Your task to perform on an android device: Go to Android settings Image 0: 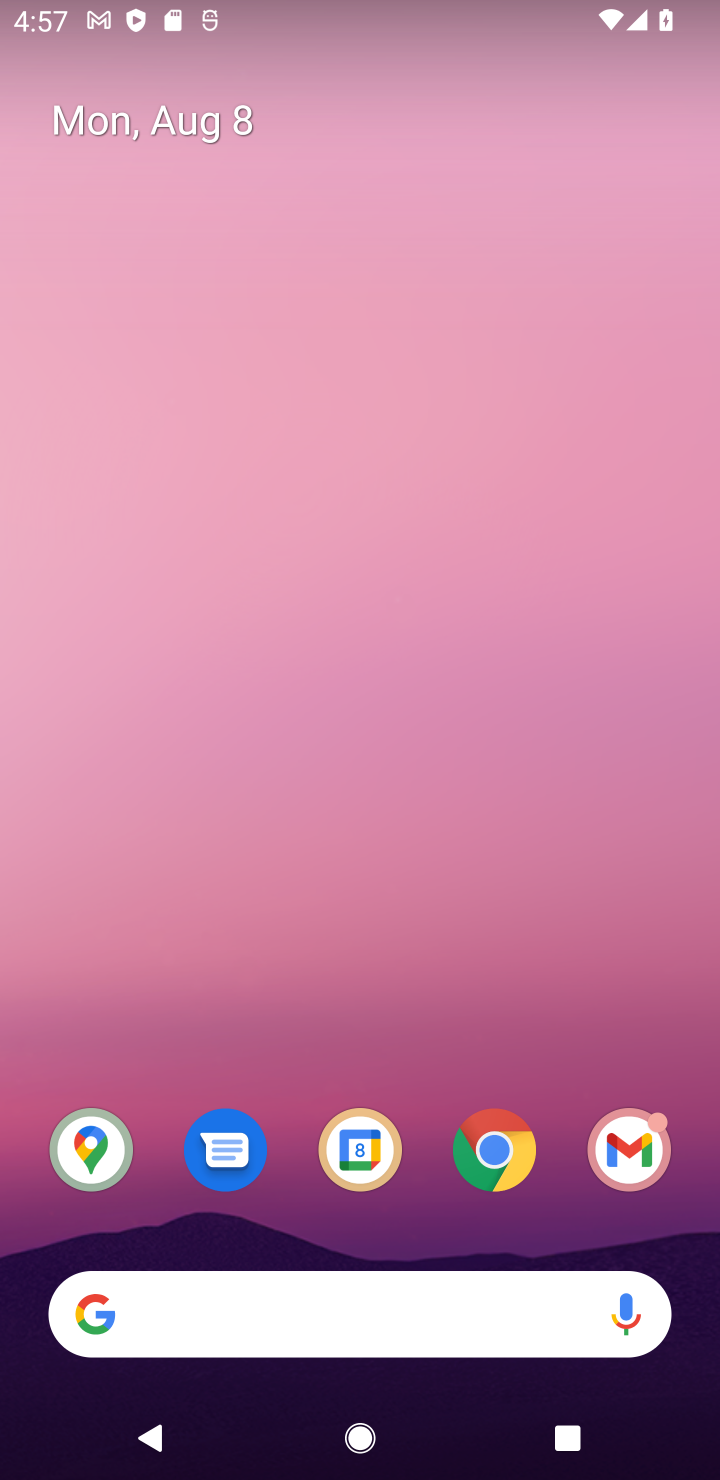
Step 0: task complete